Your task to perform on an android device: change the clock style Image 0: 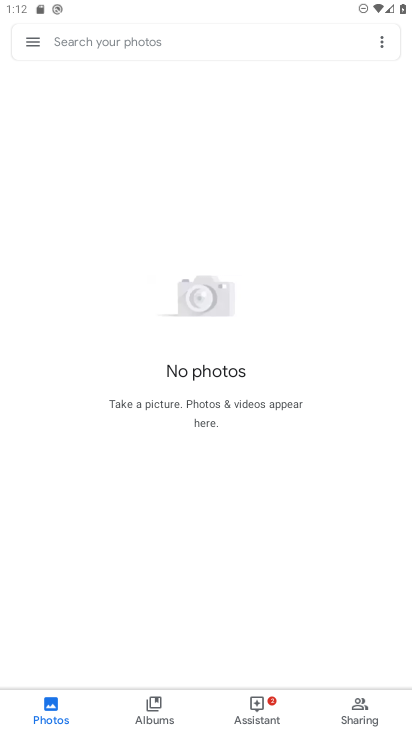
Step 0: press home button
Your task to perform on an android device: change the clock style Image 1: 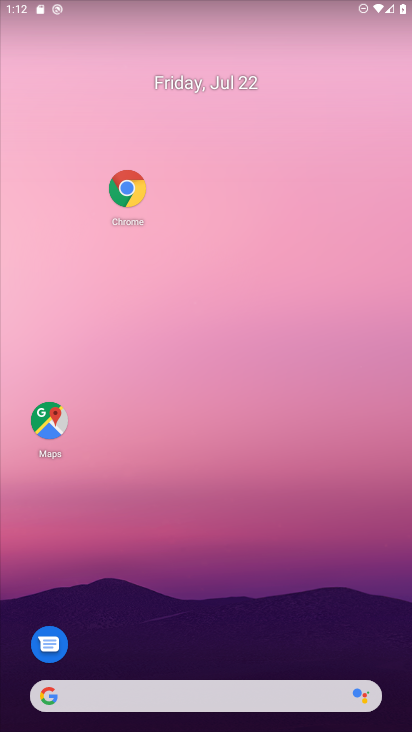
Step 1: drag from (124, 650) to (181, 308)
Your task to perform on an android device: change the clock style Image 2: 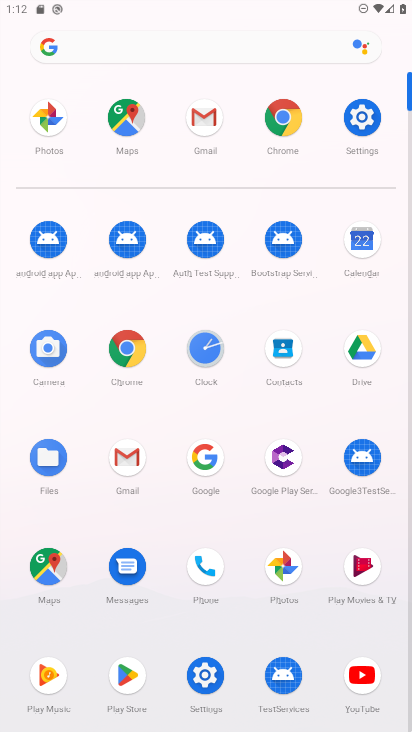
Step 2: click (211, 356)
Your task to perform on an android device: change the clock style Image 3: 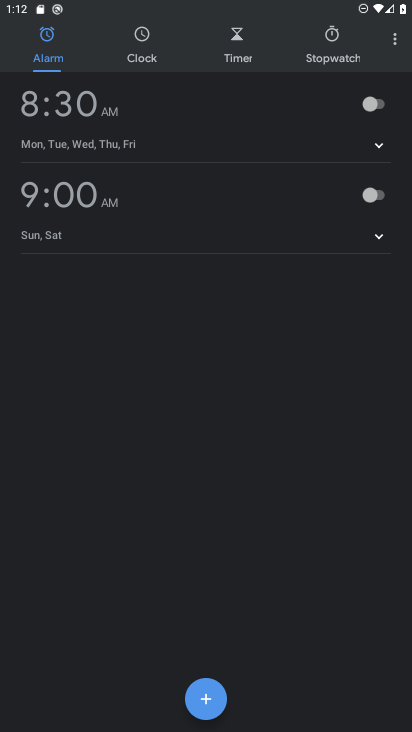
Step 3: click (402, 42)
Your task to perform on an android device: change the clock style Image 4: 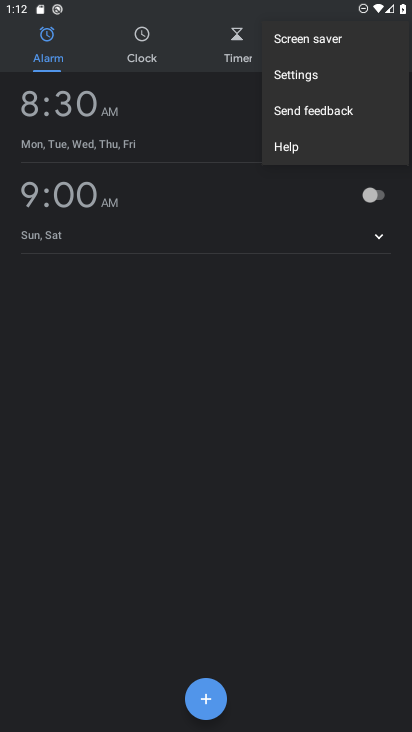
Step 4: click (286, 84)
Your task to perform on an android device: change the clock style Image 5: 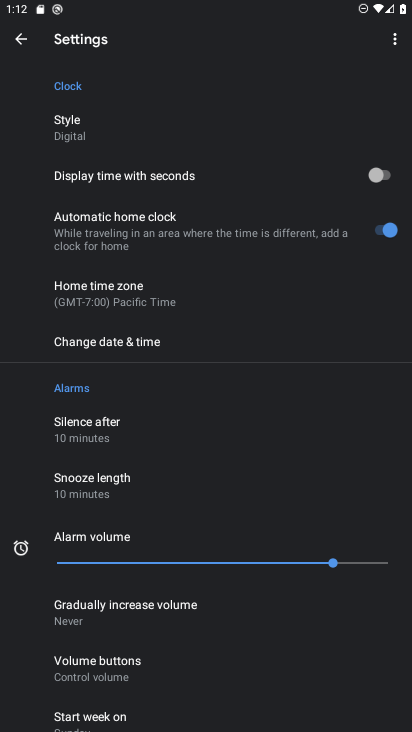
Step 5: click (81, 138)
Your task to perform on an android device: change the clock style Image 6: 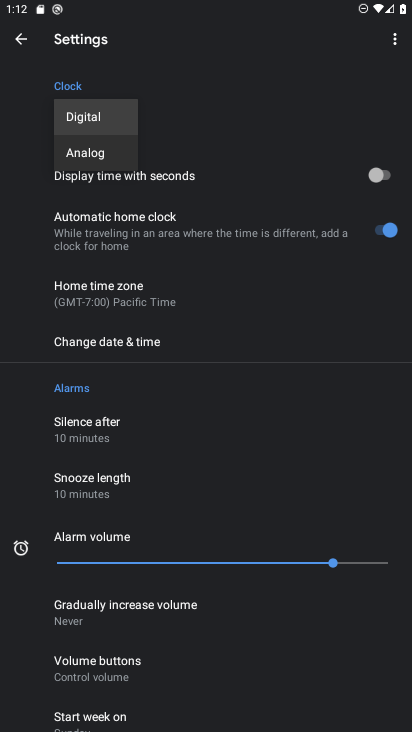
Step 6: click (87, 154)
Your task to perform on an android device: change the clock style Image 7: 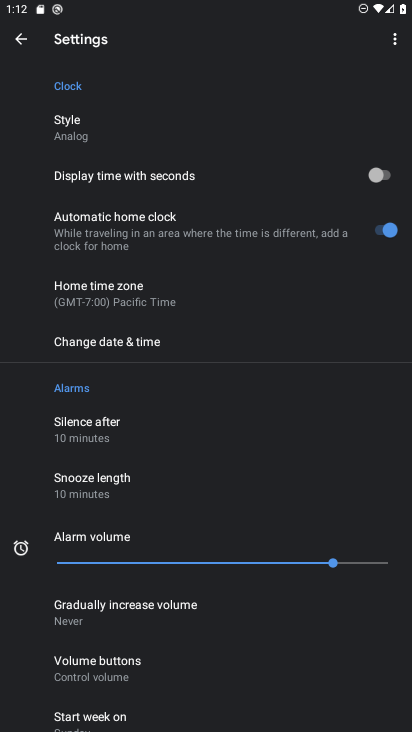
Step 7: task complete